Your task to perform on an android device: turn off notifications in google photos Image 0: 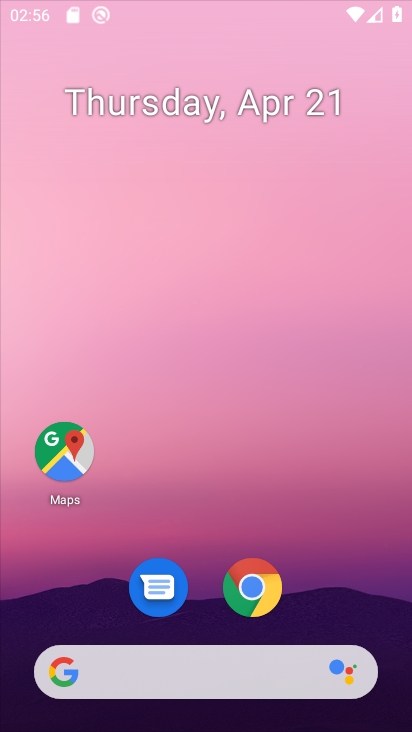
Step 0: drag from (370, 593) to (372, 227)
Your task to perform on an android device: turn off notifications in google photos Image 1: 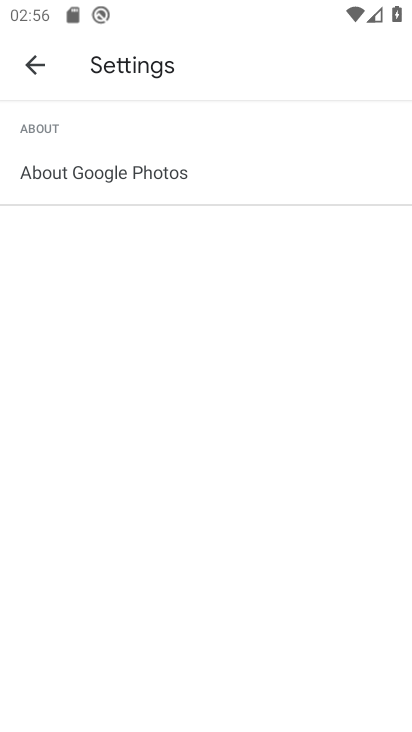
Step 1: press home button
Your task to perform on an android device: turn off notifications in google photos Image 2: 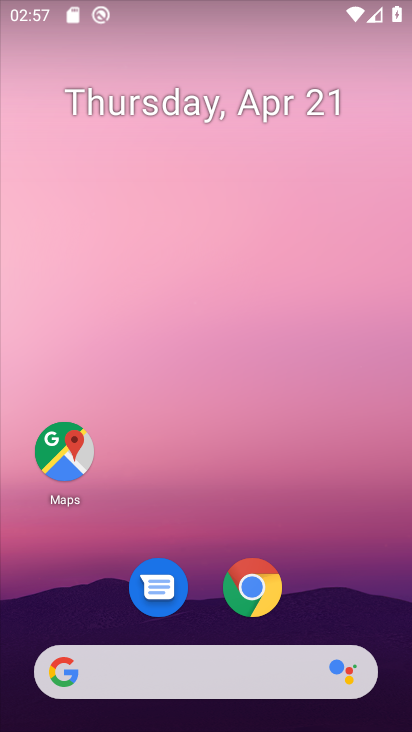
Step 2: drag from (349, 578) to (370, 127)
Your task to perform on an android device: turn off notifications in google photos Image 3: 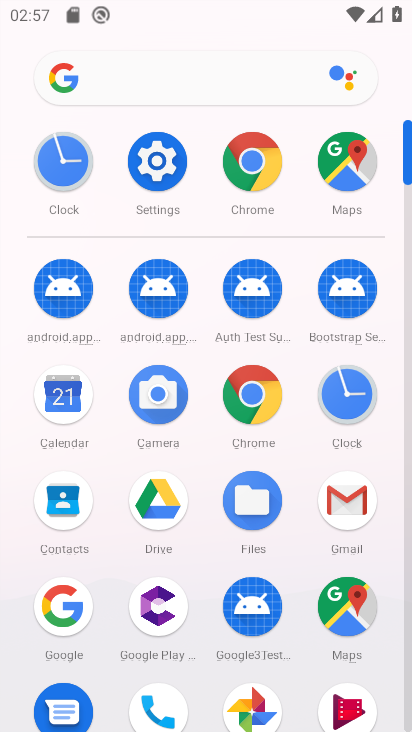
Step 3: drag from (199, 615) to (213, 371)
Your task to perform on an android device: turn off notifications in google photos Image 4: 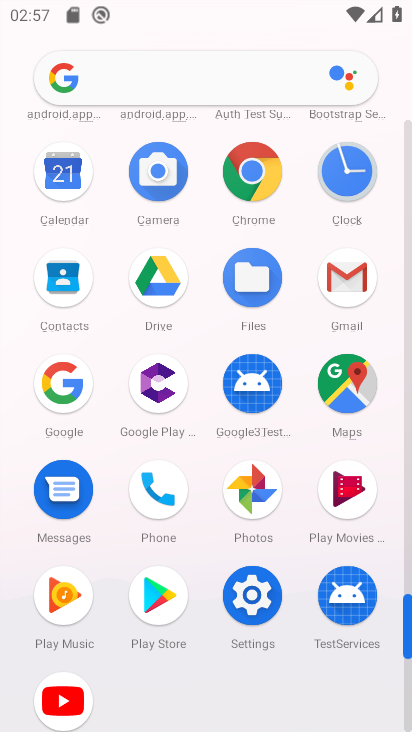
Step 4: click (243, 523)
Your task to perform on an android device: turn off notifications in google photos Image 5: 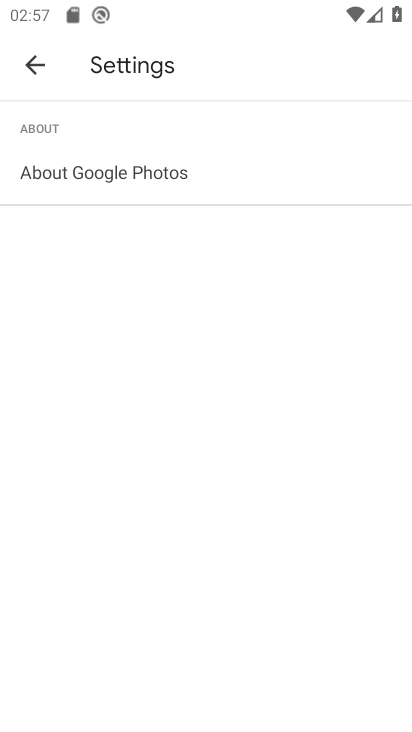
Step 5: click (42, 56)
Your task to perform on an android device: turn off notifications in google photos Image 6: 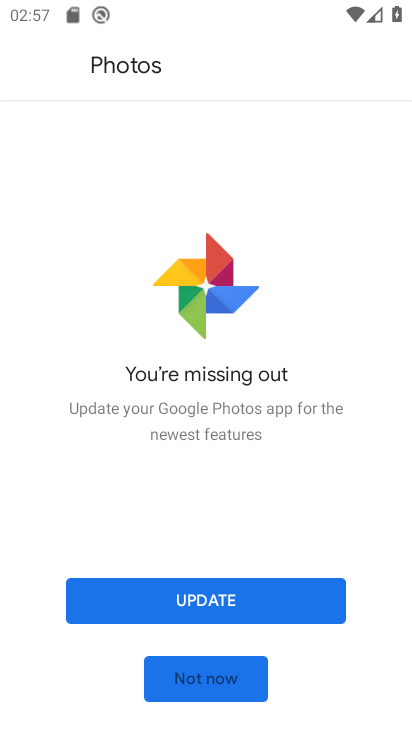
Step 6: click (282, 615)
Your task to perform on an android device: turn off notifications in google photos Image 7: 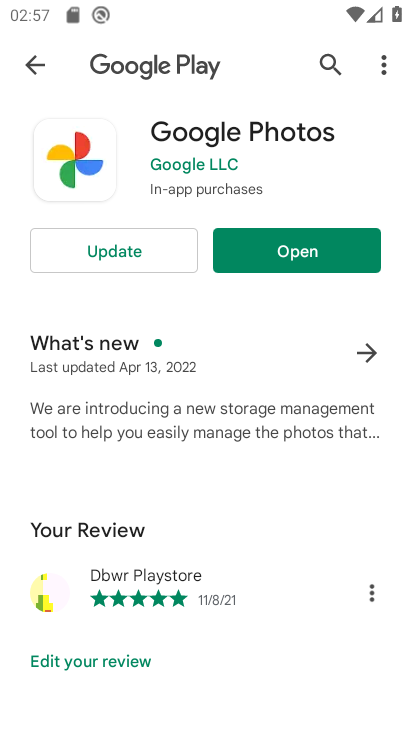
Step 7: click (125, 262)
Your task to perform on an android device: turn off notifications in google photos Image 8: 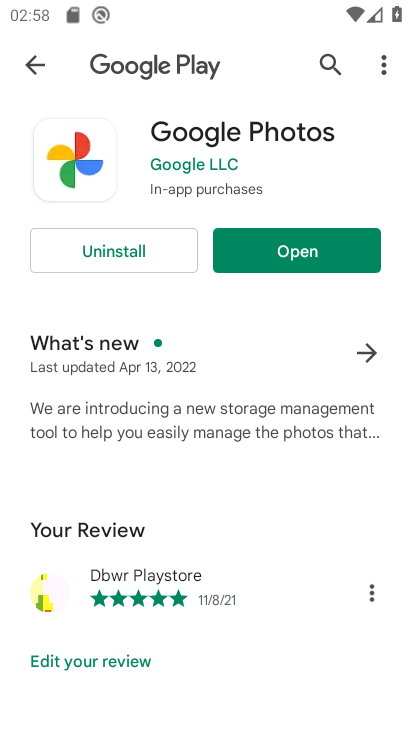
Step 8: click (302, 254)
Your task to perform on an android device: turn off notifications in google photos Image 9: 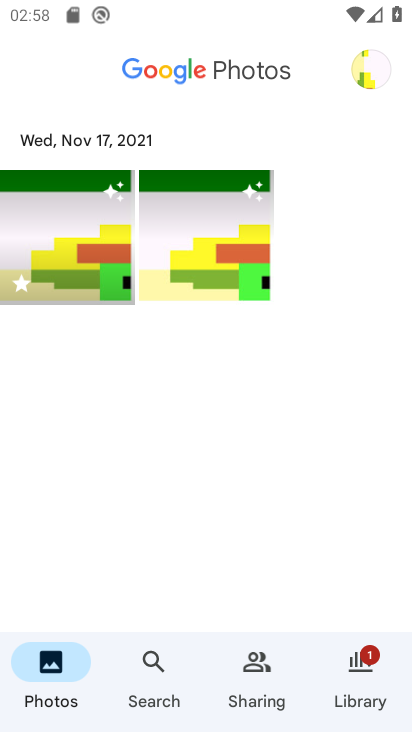
Step 9: click (367, 75)
Your task to perform on an android device: turn off notifications in google photos Image 10: 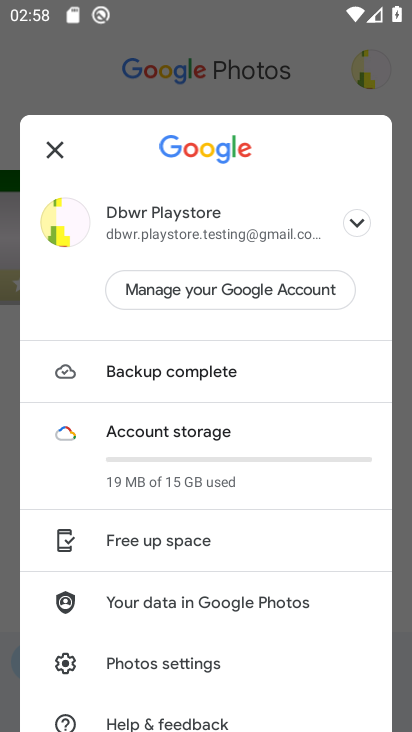
Step 10: drag from (316, 632) to (313, 411)
Your task to perform on an android device: turn off notifications in google photos Image 11: 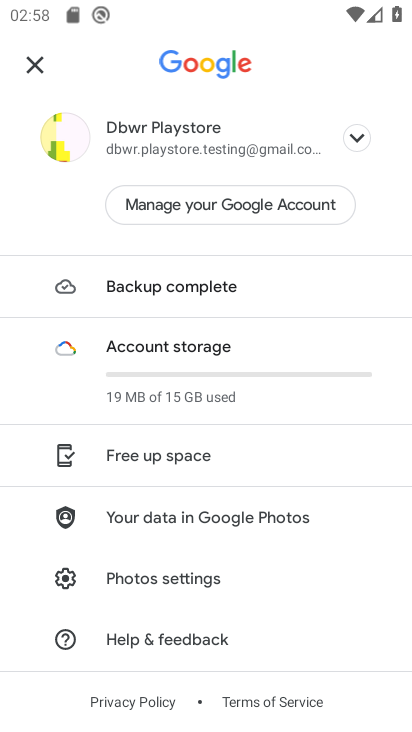
Step 11: click (210, 584)
Your task to perform on an android device: turn off notifications in google photos Image 12: 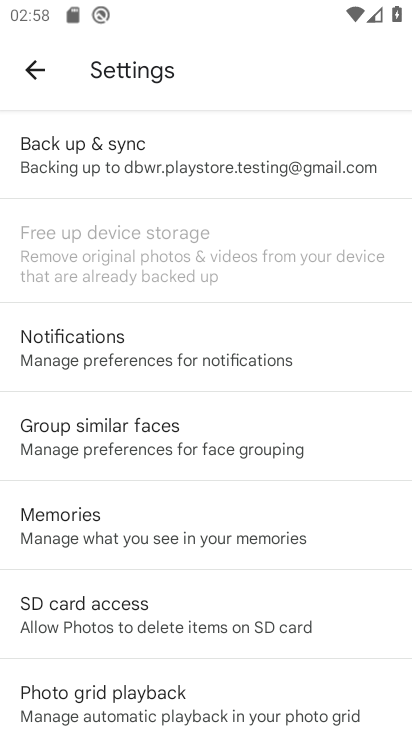
Step 12: drag from (346, 608) to (357, 429)
Your task to perform on an android device: turn off notifications in google photos Image 13: 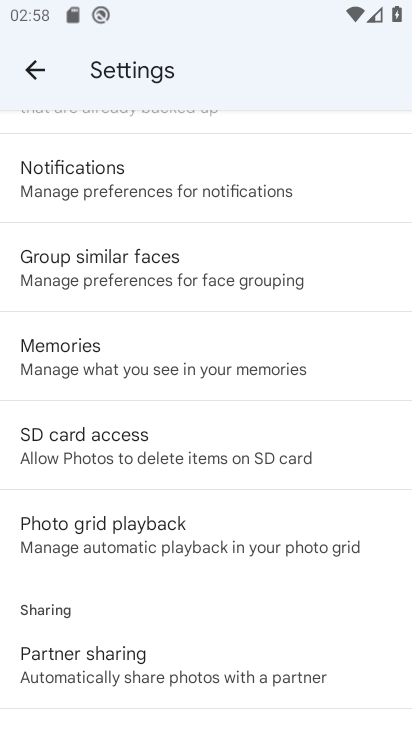
Step 13: click (239, 194)
Your task to perform on an android device: turn off notifications in google photos Image 14: 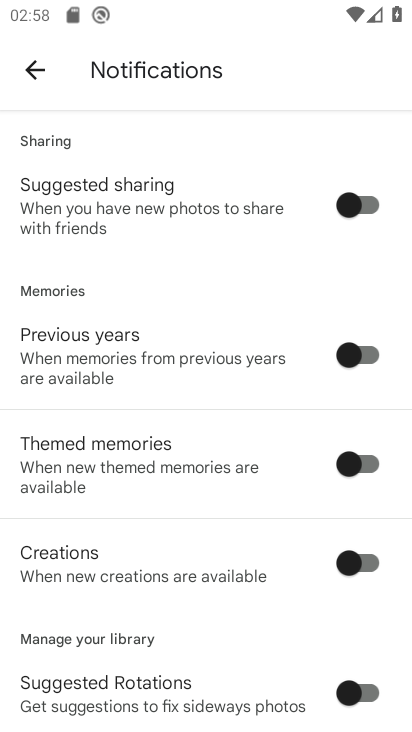
Step 14: drag from (281, 612) to (257, 466)
Your task to perform on an android device: turn off notifications in google photos Image 15: 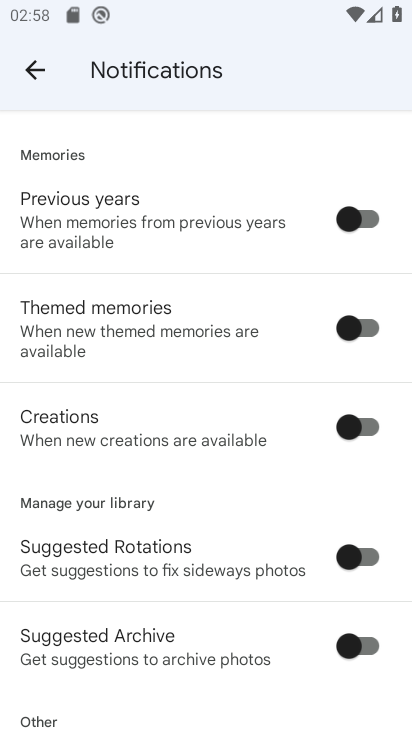
Step 15: drag from (258, 582) to (267, 452)
Your task to perform on an android device: turn off notifications in google photos Image 16: 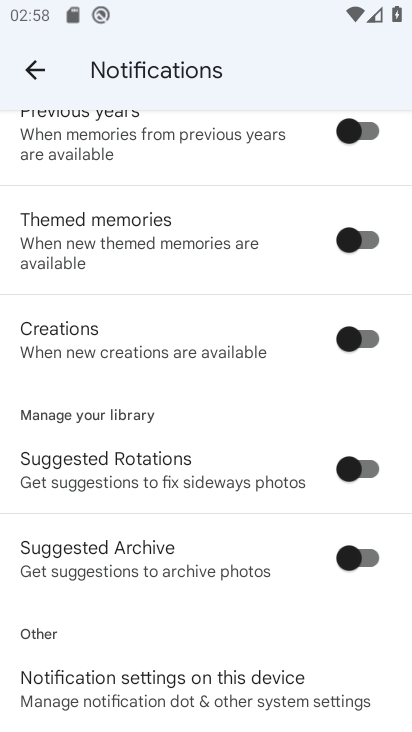
Step 16: drag from (272, 608) to (283, 452)
Your task to perform on an android device: turn off notifications in google photos Image 17: 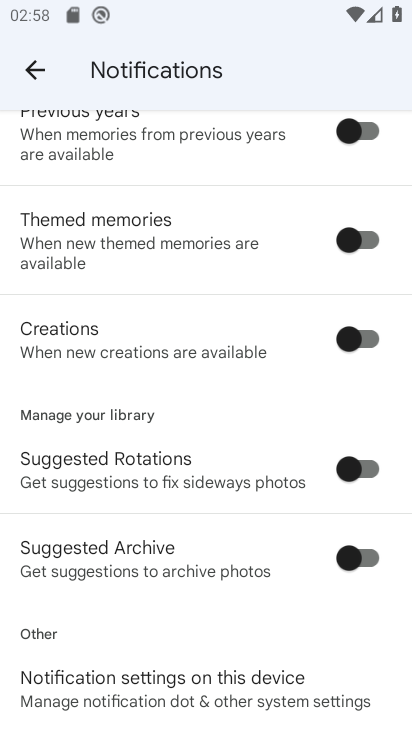
Step 17: click (245, 680)
Your task to perform on an android device: turn off notifications in google photos Image 18: 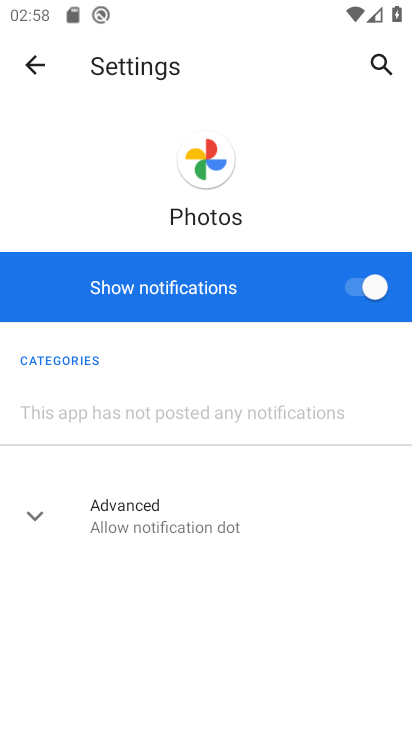
Step 18: click (359, 295)
Your task to perform on an android device: turn off notifications in google photos Image 19: 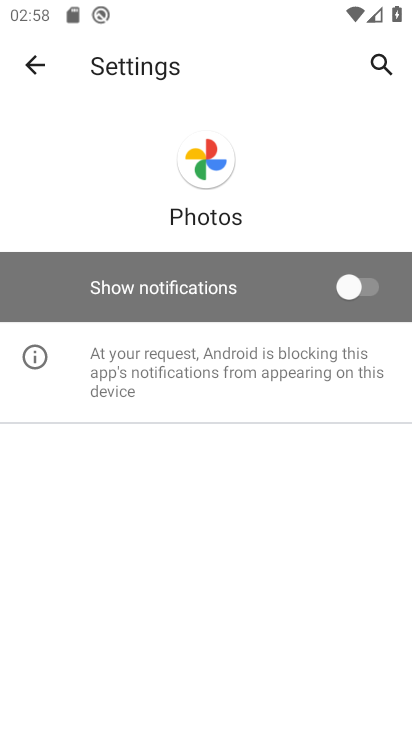
Step 19: task complete